Your task to perform on an android device: show emergency info Image 0: 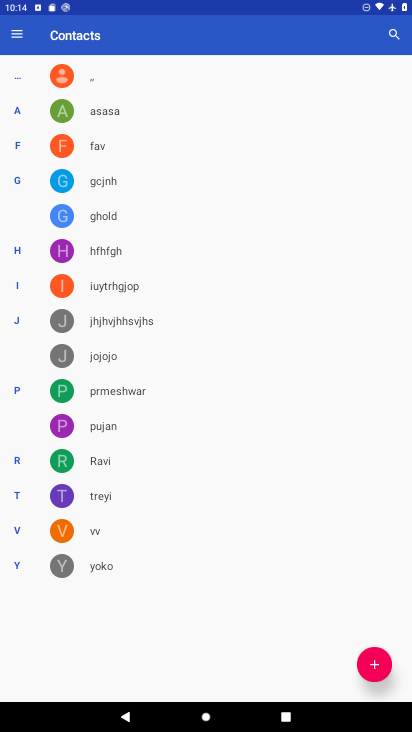
Step 0: press home button
Your task to perform on an android device: show emergency info Image 1: 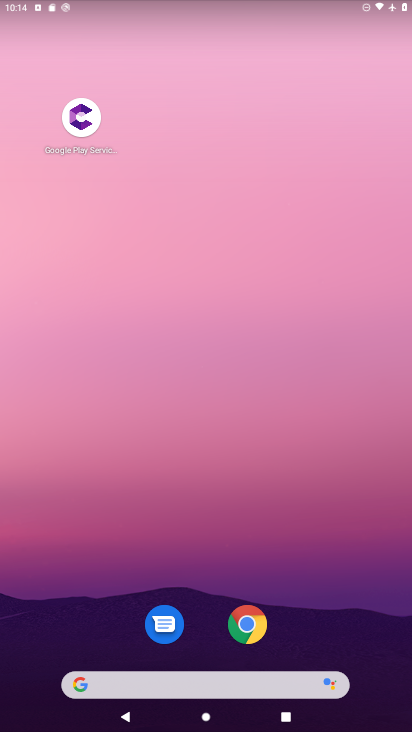
Step 1: drag from (205, 602) to (204, 121)
Your task to perform on an android device: show emergency info Image 2: 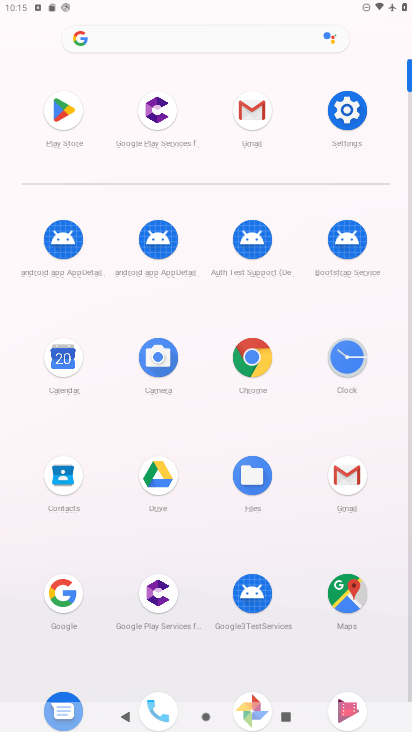
Step 2: click (338, 111)
Your task to perform on an android device: show emergency info Image 3: 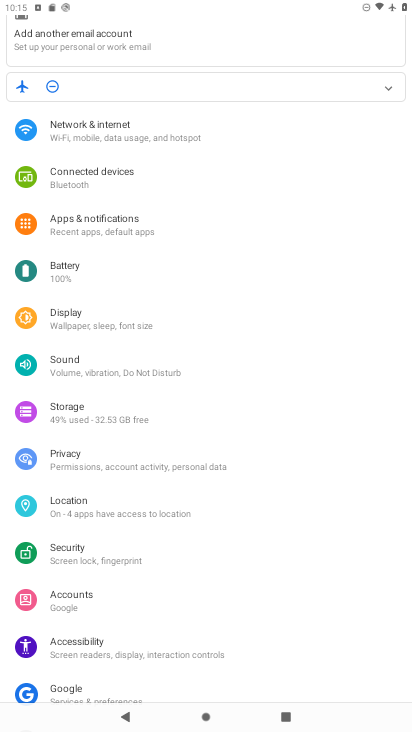
Step 3: drag from (164, 630) to (174, 272)
Your task to perform on an android device: show emergency info Image 4: 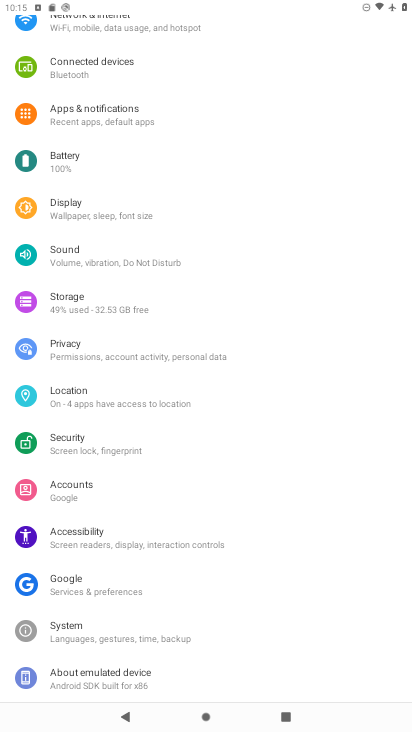
Step 4: drag from (129, 635) to (142, 427)
Your task to perform on an android device: show emergency info Image 5: 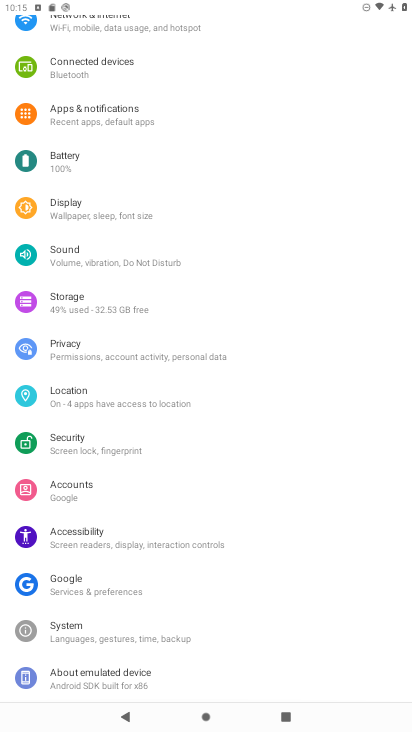
Step 5: click (95, 680)
Your task to perform on an android device: show emergency info Image 6: 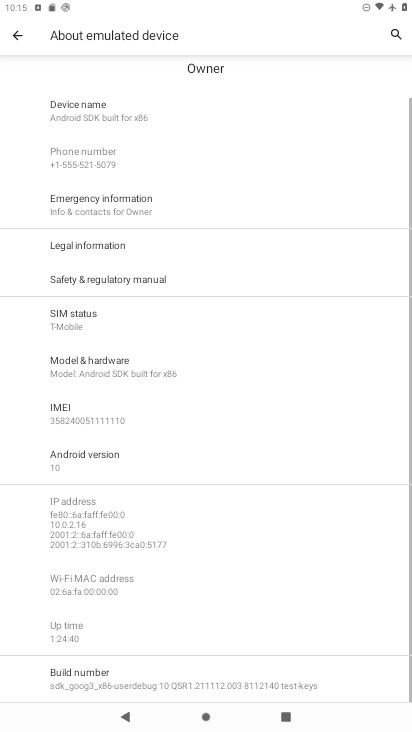
Step 6: click (52, 212)
Your task to perform on an android device: show emergency info Image 7: 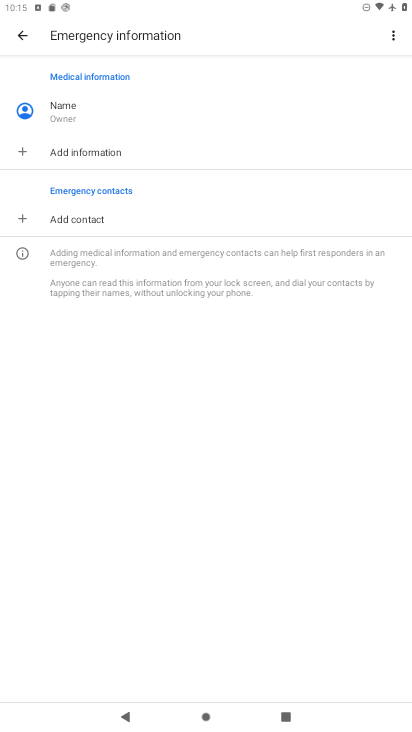
Step 7: task complete